Your task to perform on an android device: delete a single message in the gmail app Image 0: 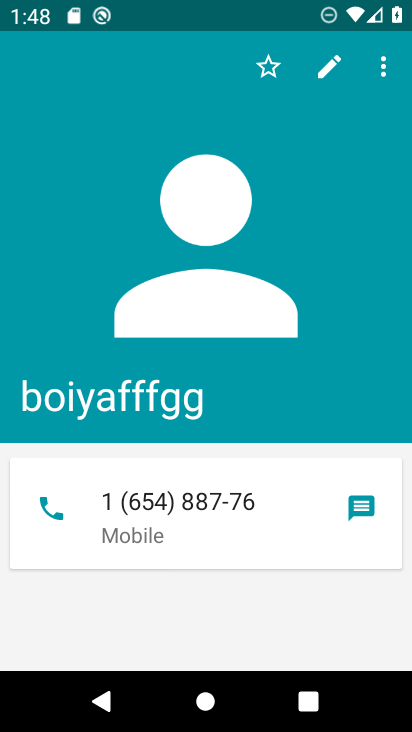
Step 0: press home button
Your task to perform on an android device: delete a single message in the gmail app Image 1: 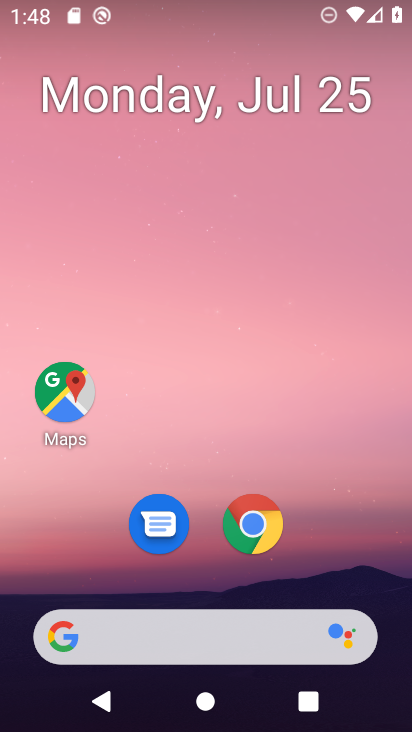
Step 1: drag from (141, 634) to (323, 128)
Your task to perform on an android device: delete a single message in the gmail app Image 2: 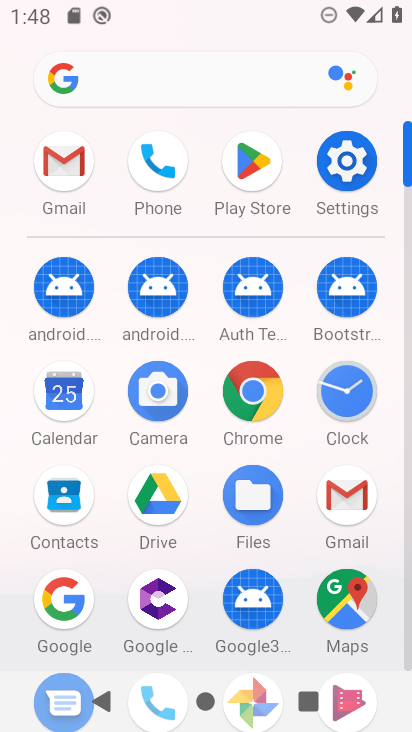
Step 2: click (67, 170)
Your task to perform on an android device: delete a single message in the gmail app Image 3: 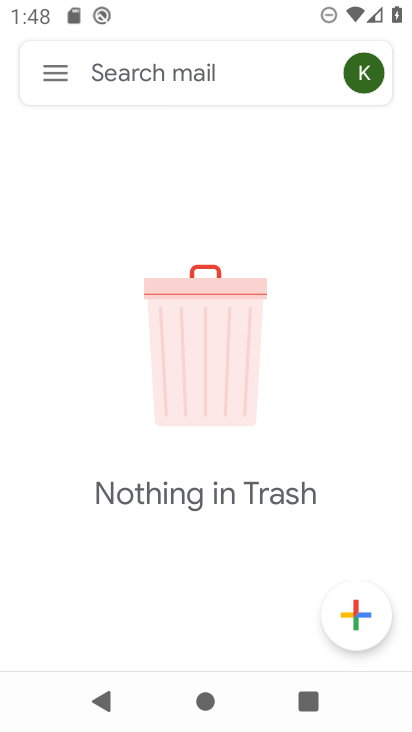
Step 3: click (50, 72)
Your task to perform on an android device: delete a single message in the gmail app Image 4: 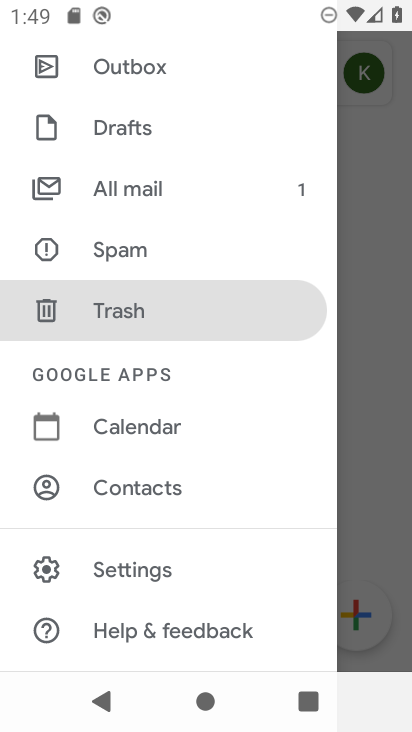
Step 4: click (142, 200)
Your task to perform on an android device: delete a single message in the gmail app Image 5: 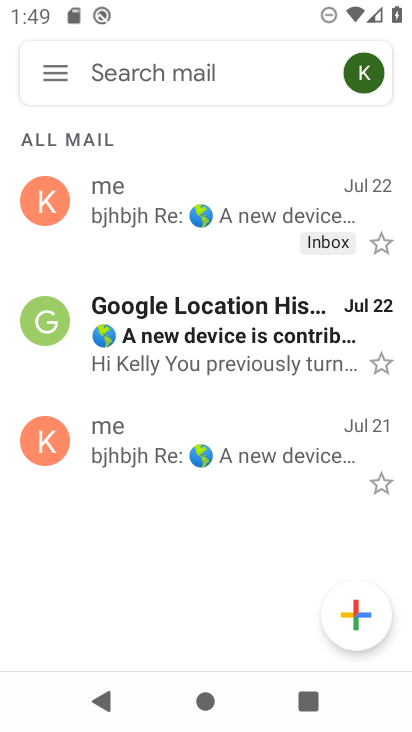
Step 5: click (48, 202)
Your task to perform on an android device: delete a single message in the gmail app Image 6: 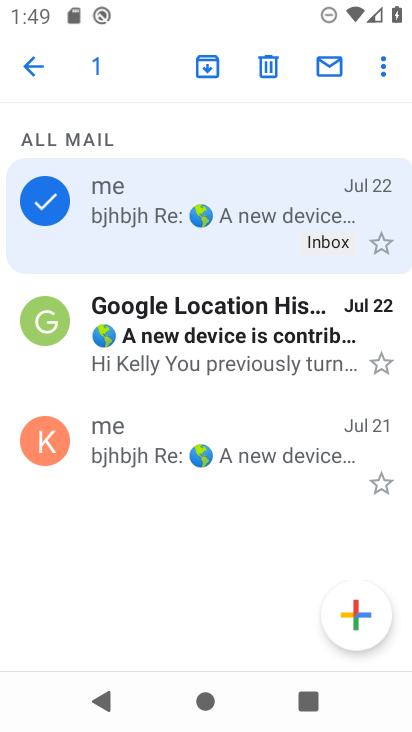
Step 6: click (265, 65)
Your task to perform on an android device: delete a single message in the gmail app Image 7: 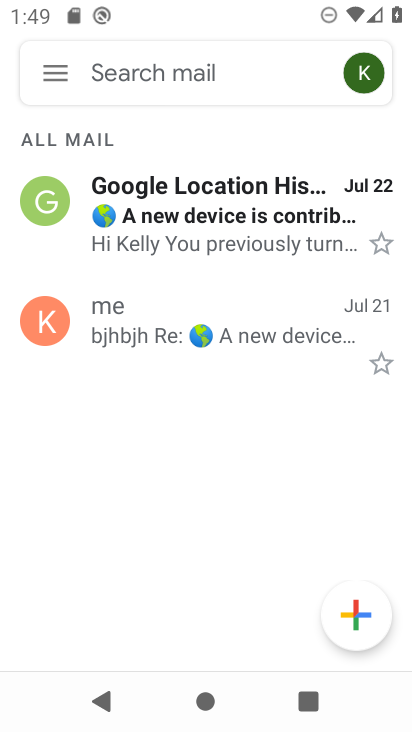
Step 7: task complete